Your task to perform on an android device: all mails in gmail Image 0: 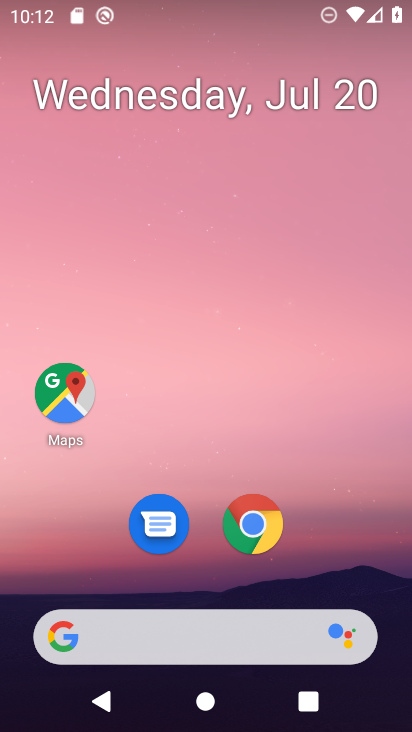
Step 0: drag from (199, 645) to (261, 66)
Your task to perform on an android device: all mails in gmail Image 1: 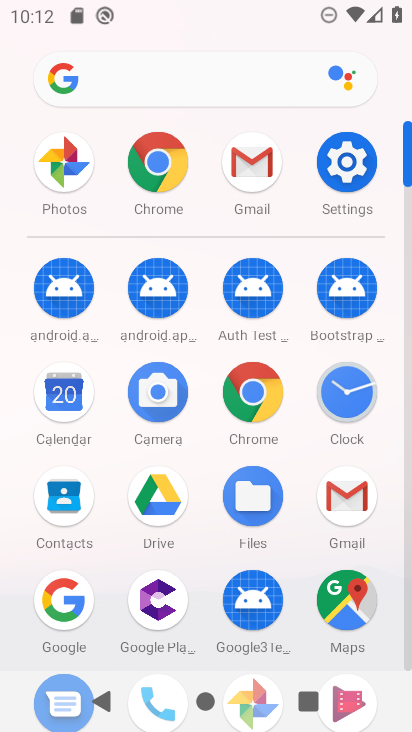
Step 1: click (260, 179)
Your task to perform on an android device: all mails in gmail Image 2: 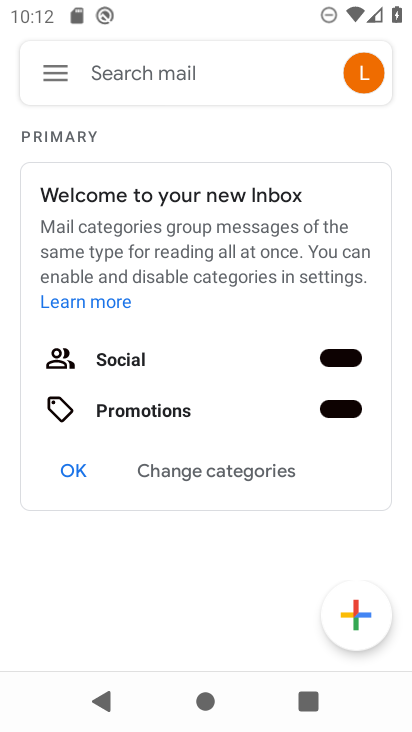
Step 2: click (52, 72)
Your task to perform on an android device: all mails in gmail Image 3: 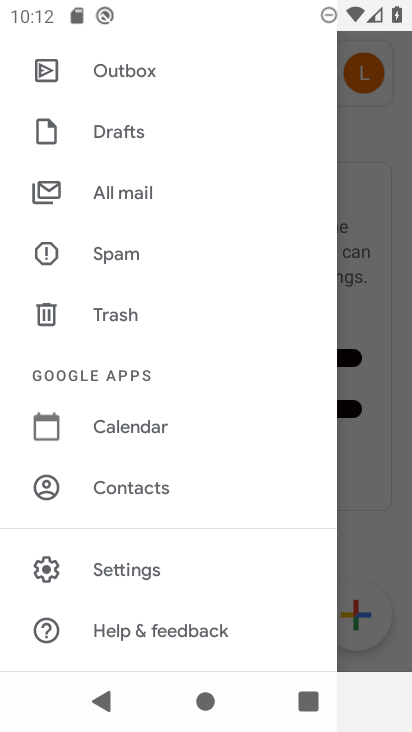
Step 3: click (122, 191)
Your task to perform on an android device: all mails in gmail Image 4: 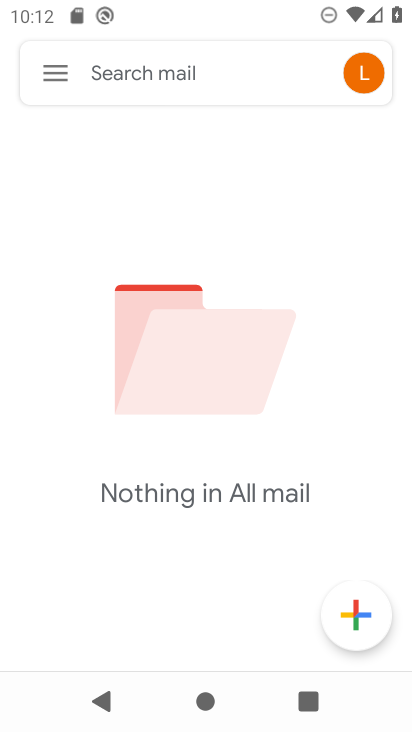
Step 4: task complete